Your task to perform on an android device: Open the web browser Image 0: 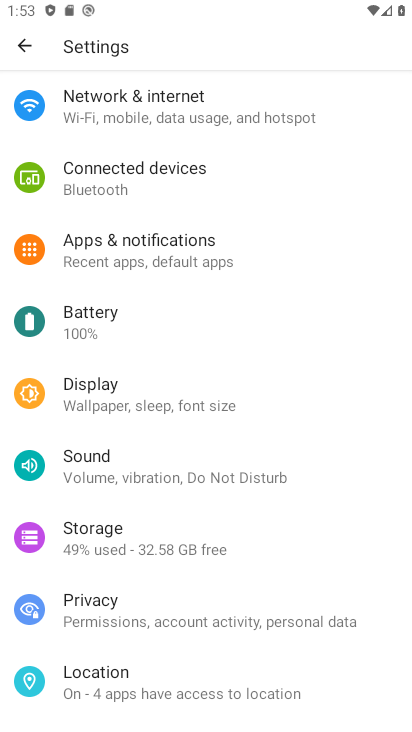
Step 0: press home button
Your task to perform on an android device: Open the web browser Image 1: 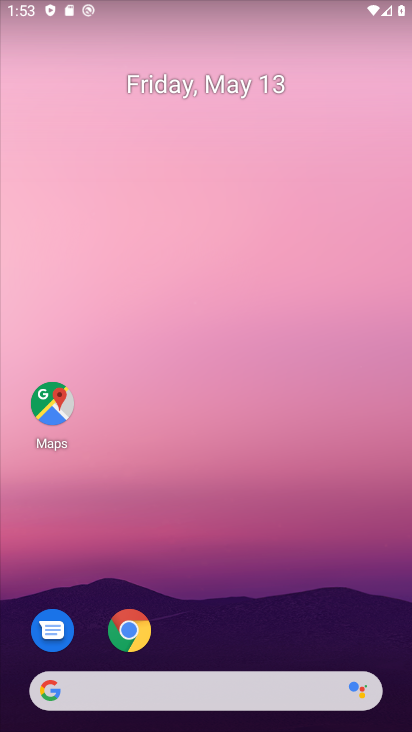
Step 1: click (131, 629)
Your task to perform on an android device: Open the web browser Image 2: 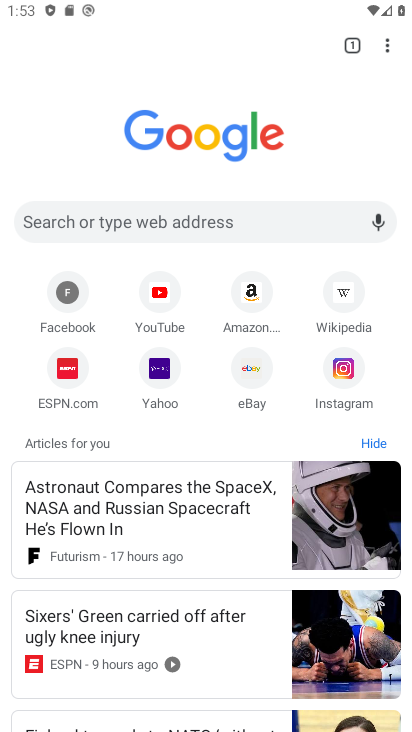
Step 2: task complete